Your task to perform on an android device: check the backup settings in the google photos Image 0: 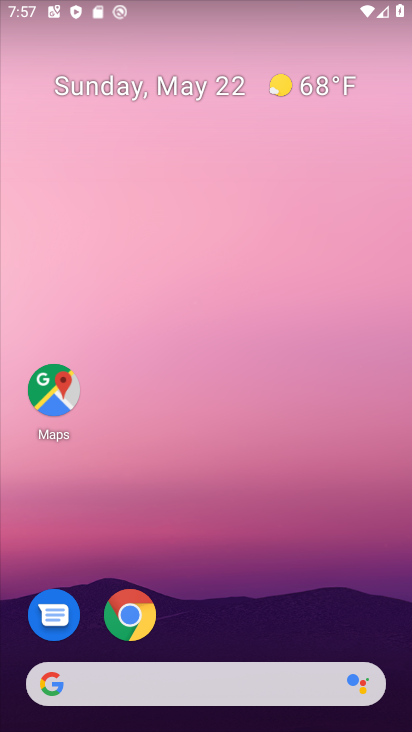
Step 0: click (332, 237)
Your task to perform on an android device: check the backup settings in the google photos Image 1: 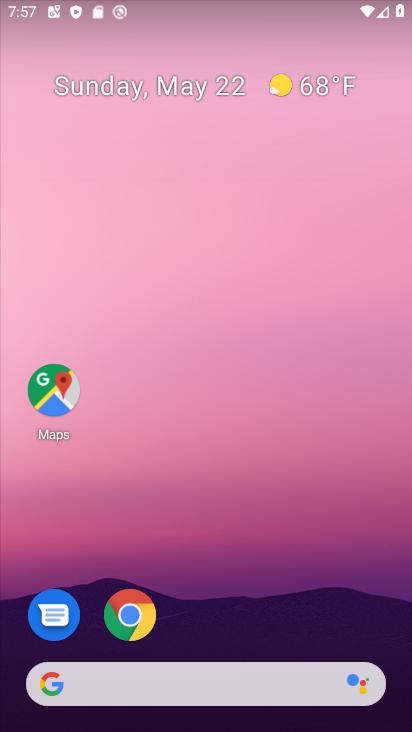
Step 1: drag from (202, 652) to (152, 290)
Your task to perform on an android device: check the backup settings in the google photos Image 2: 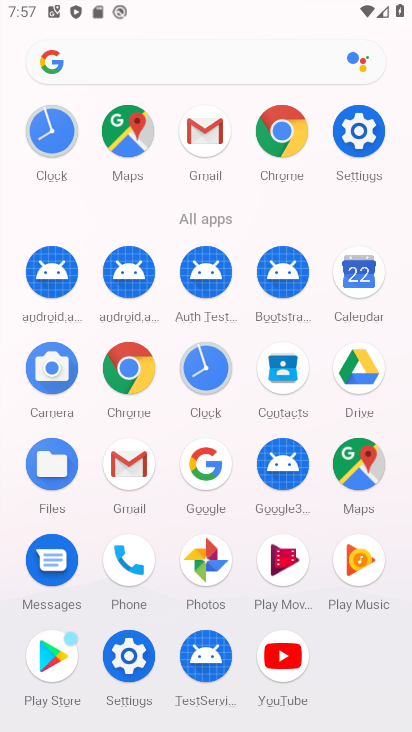
Step 2: click (195, 549)
Your task to perform on an android device: check the backup settings in the google photos Image 3: 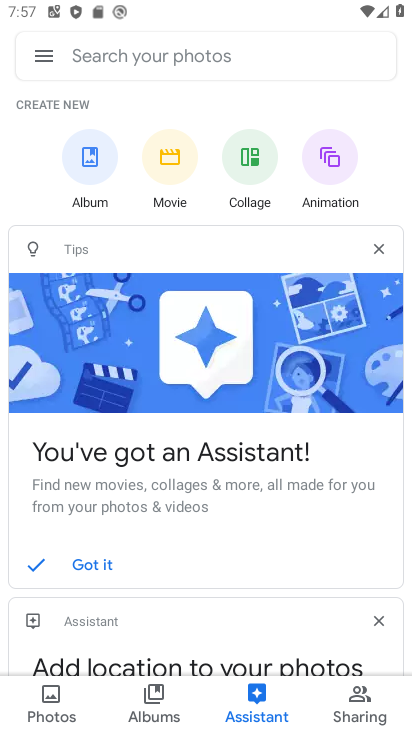
Step 3: click (30, 53)
Your task to perform on an android device: check the backup settings in the google photos Image 4: 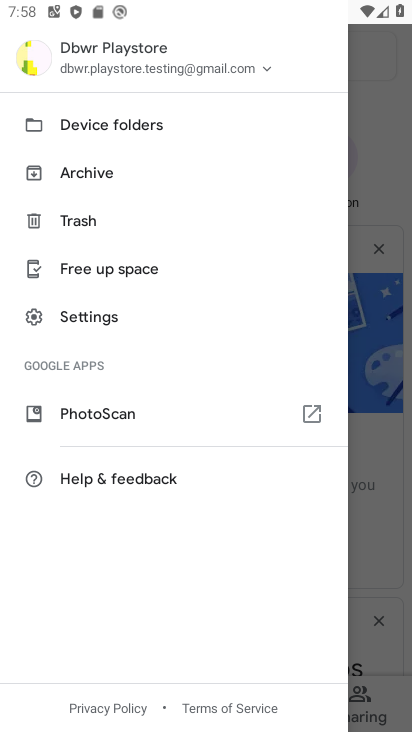
Step 4: click (87, 331)
Your task to perform on an android device: check the backup settings in the google photos Image 5: 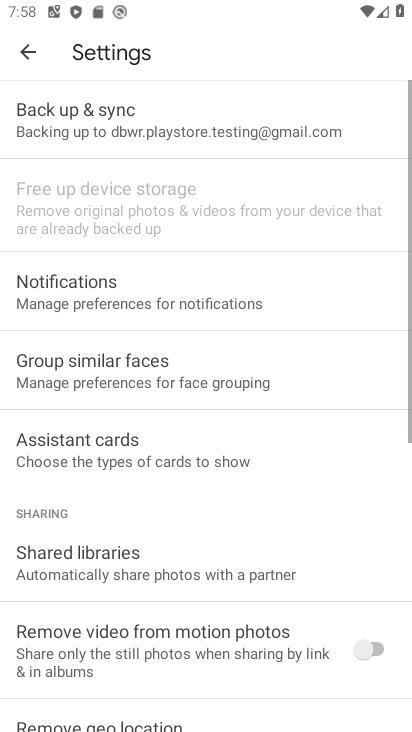
Step 5: task complete